Your task to perform on an android device: Open ESPN.com Image 0: 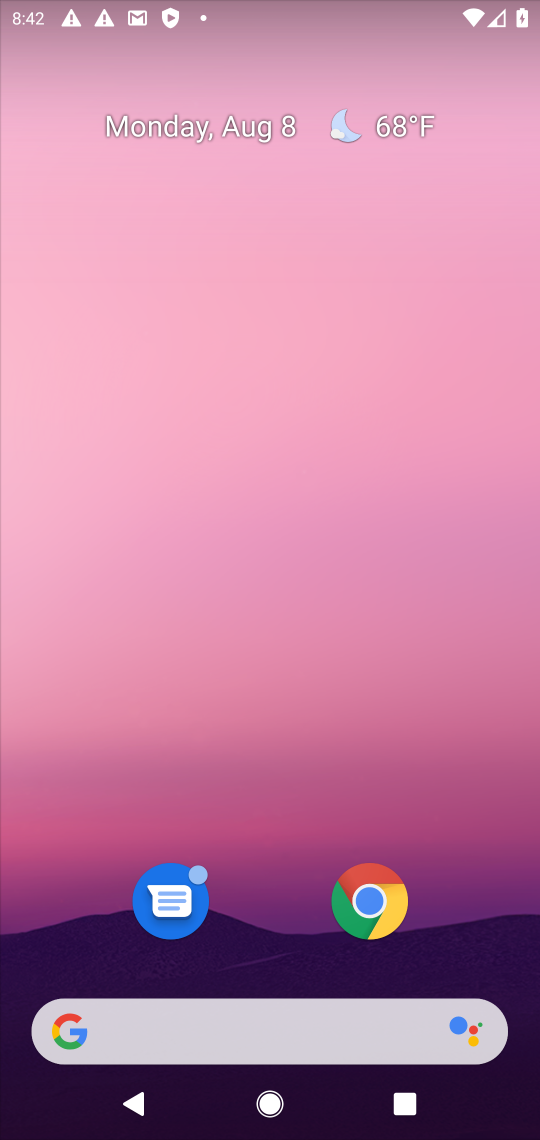
Step 0: click (371, 904)
Your task to perform on an android device: Open ESPN.com Image 1: 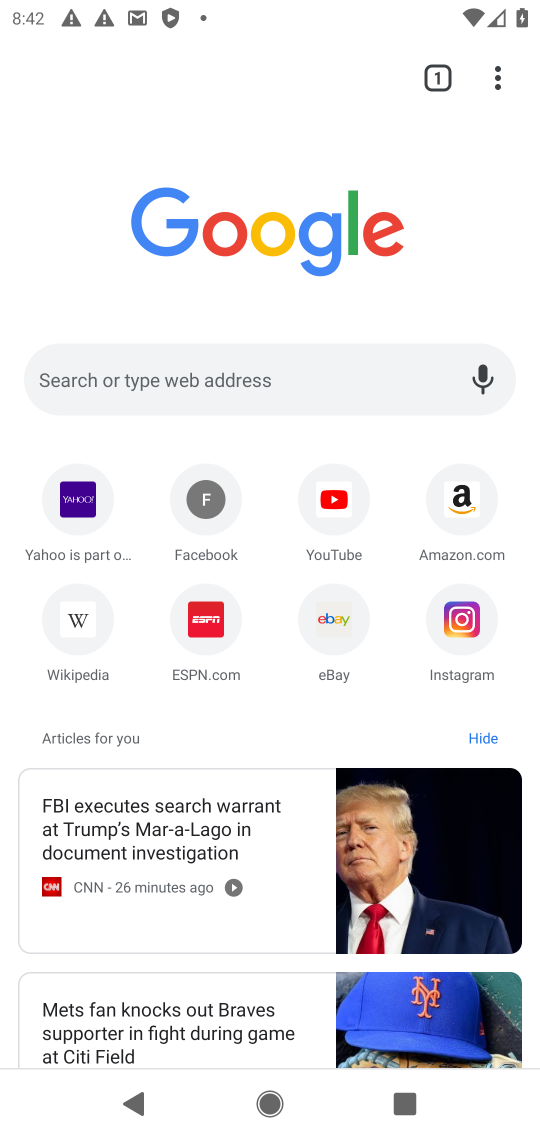
Step 1: click (240, 380)
Your task to perform on an android device: Open ESPN.com Image 2: 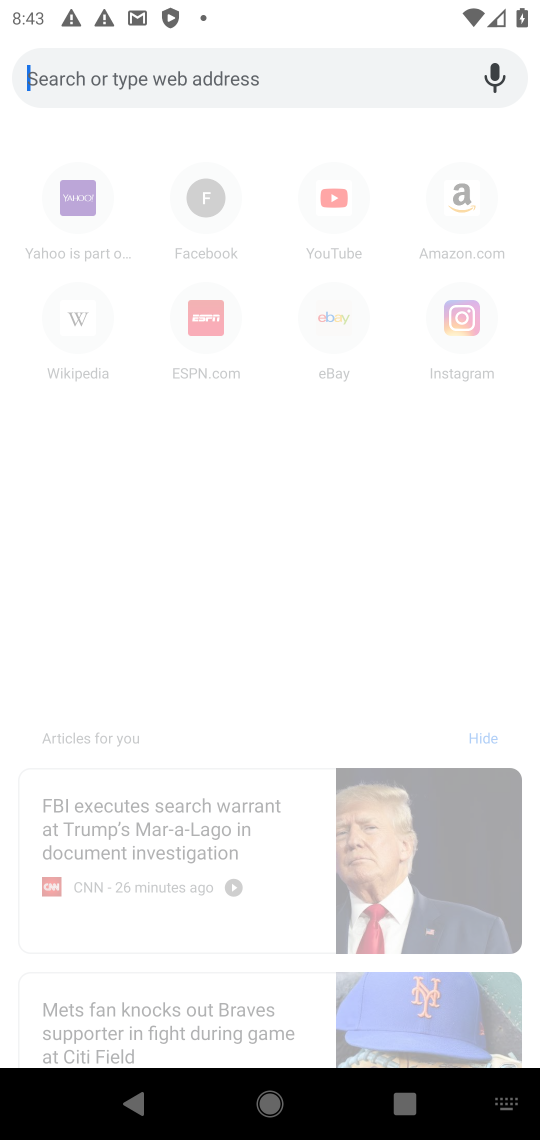
Step 2: type "www.espn.com"
Your task to perform on an android device: Open ESPN.com Image 3: 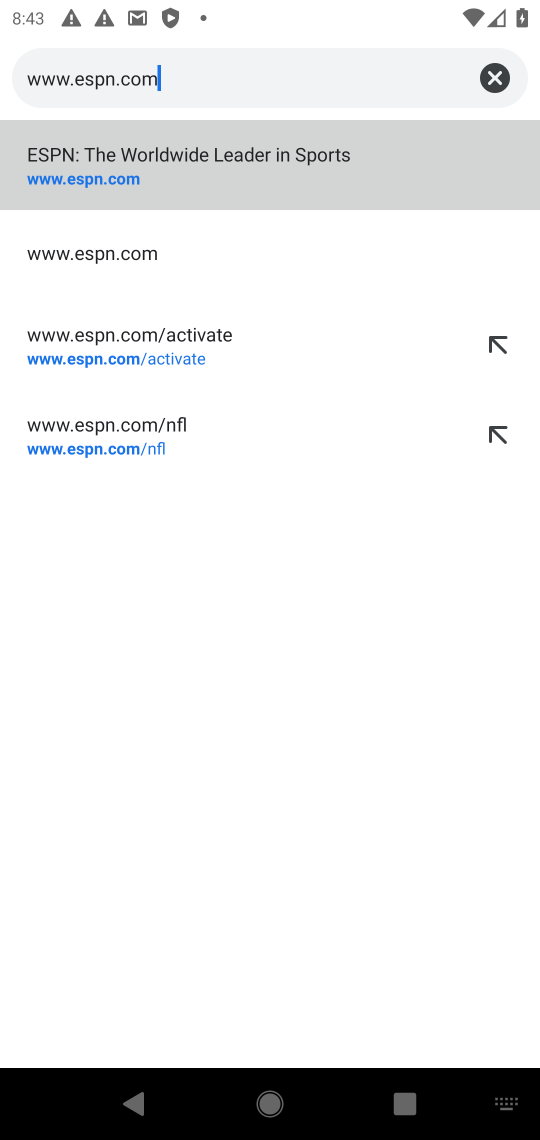
Step 3: click (86, 180)
Your task to perform on an android device: Open ESPN.com Image 4: 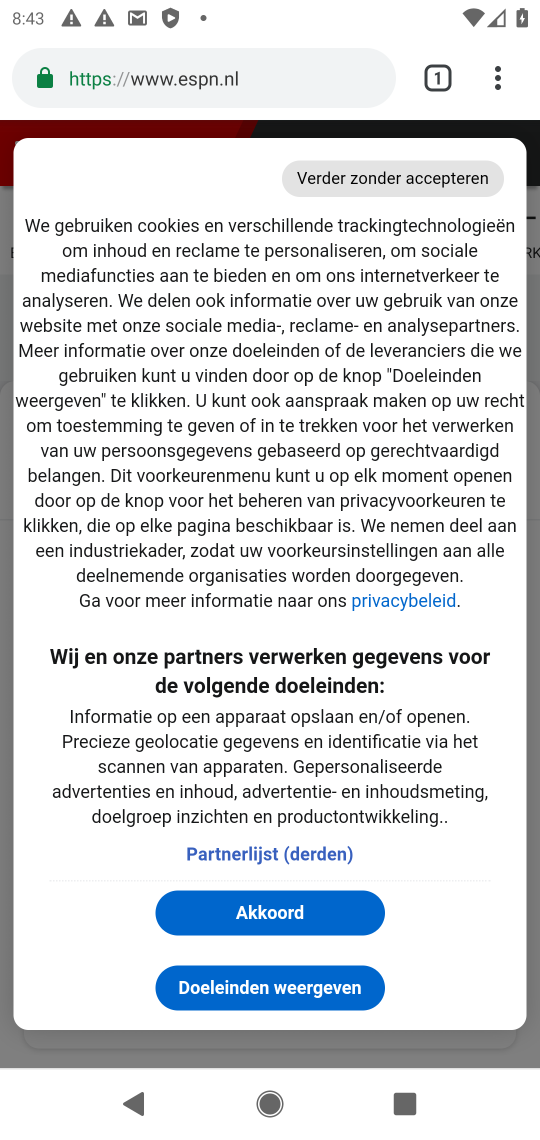
Step 4: task complete